Your task to perform on an android device: Find coffee shops on Maps Image 0: 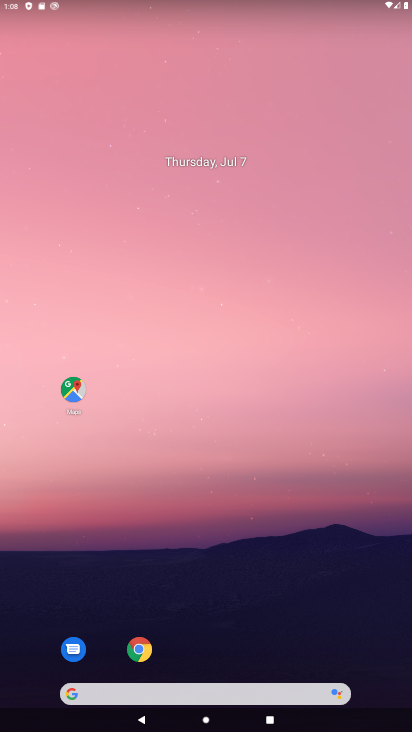
Step 0: drag from (240, 565) to (220, 462)
Your task to perform on an android device: Find coffee shops on Maps Image 1: 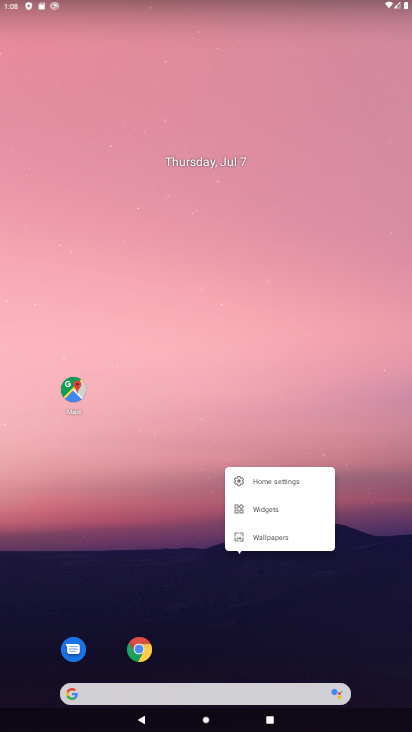
Step 1: click (78, 394)
Your task to perform on an android device: Find coffee shops on Maps Image 2: 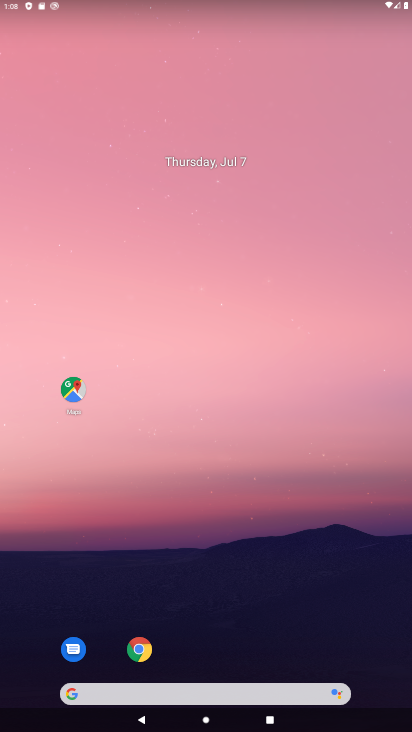
Step 2: click (78, 394)
Your task to perform on an android device: Find coffee shops on Maps Image 3: 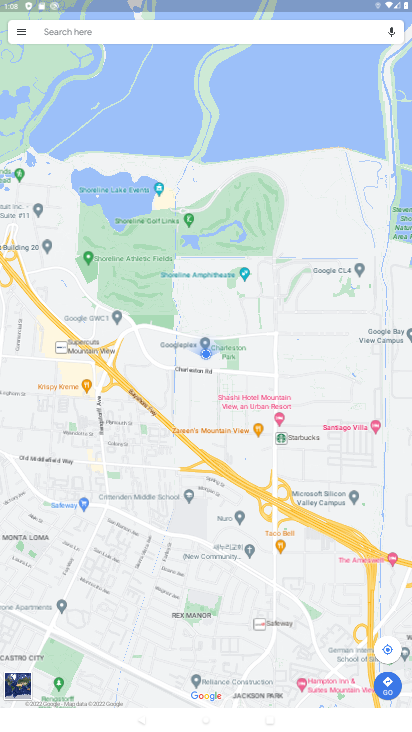
Step 3: click (217, 31)
Your task to perform on an android device: Find coffee shops on Maps Image 4: 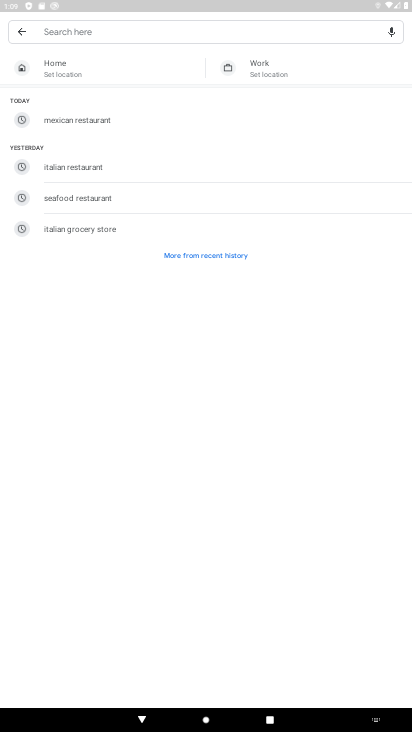
Step 4: type "coffee"
Your task to perform on an android device: Find coffee shops on Maps Image 5: 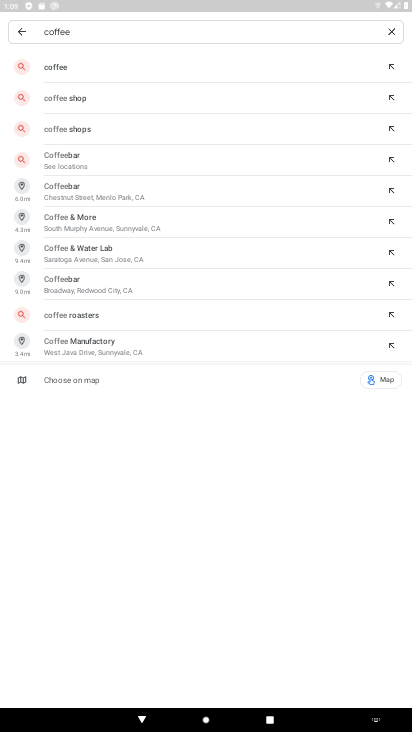
Step 5: click (234, 64)
Your task to perform on an android device: Find coffee shops on Maps Image 6: 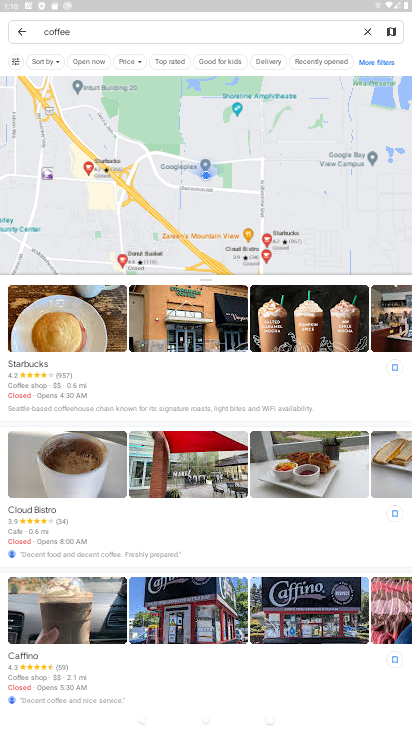
Step 6: task complete